Your task to perform on an android device: Go to Google Image 0: 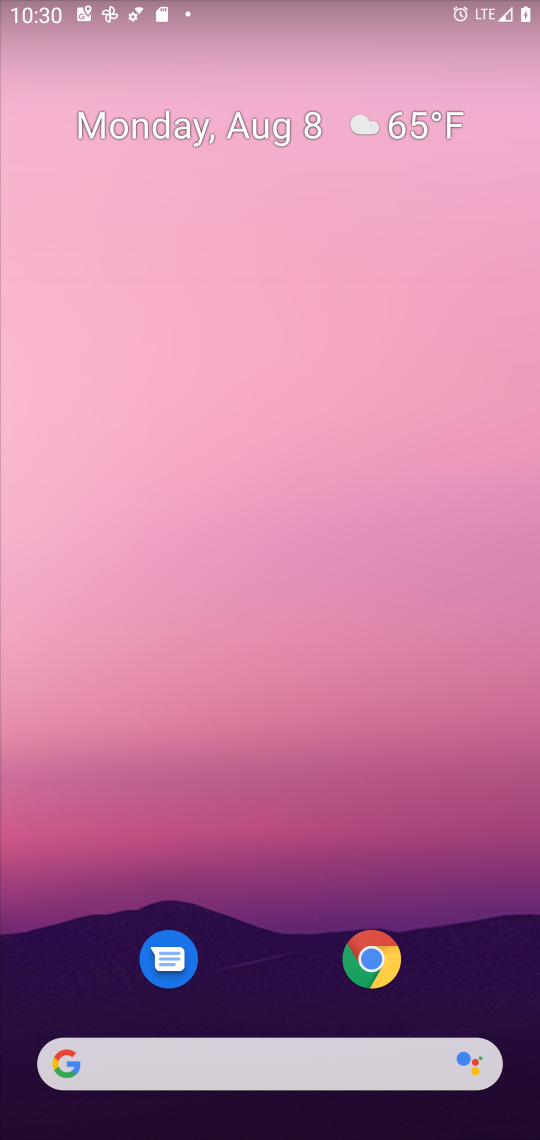
Step 0: drag from (488, 962) to (387, 43)
Your task to perform on an android device: Go to Google Image 1: 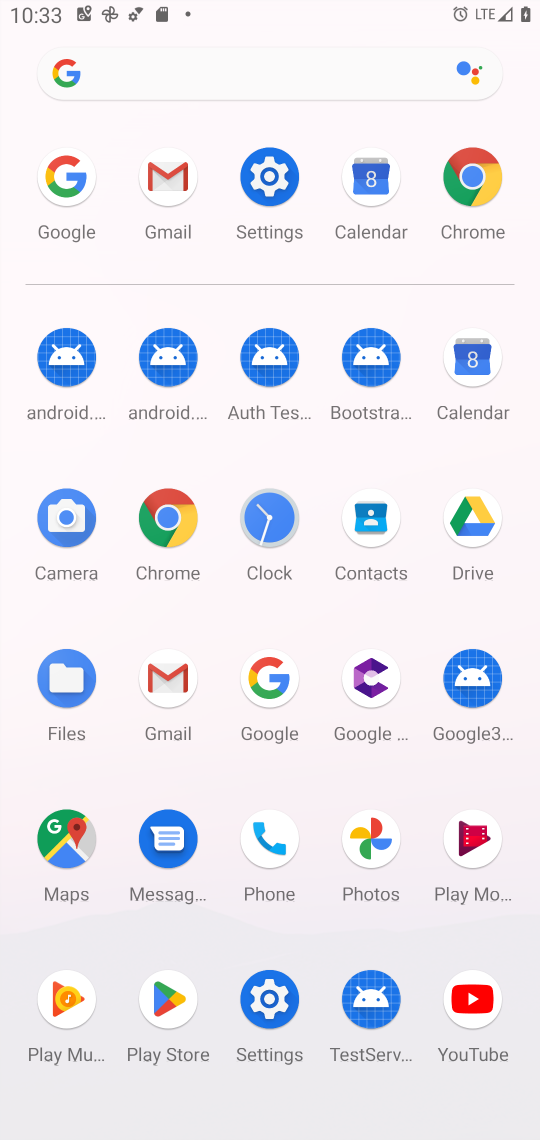
Step 1: click (262, 684)
Your task to perform on an android device: Go to Google Image 2: 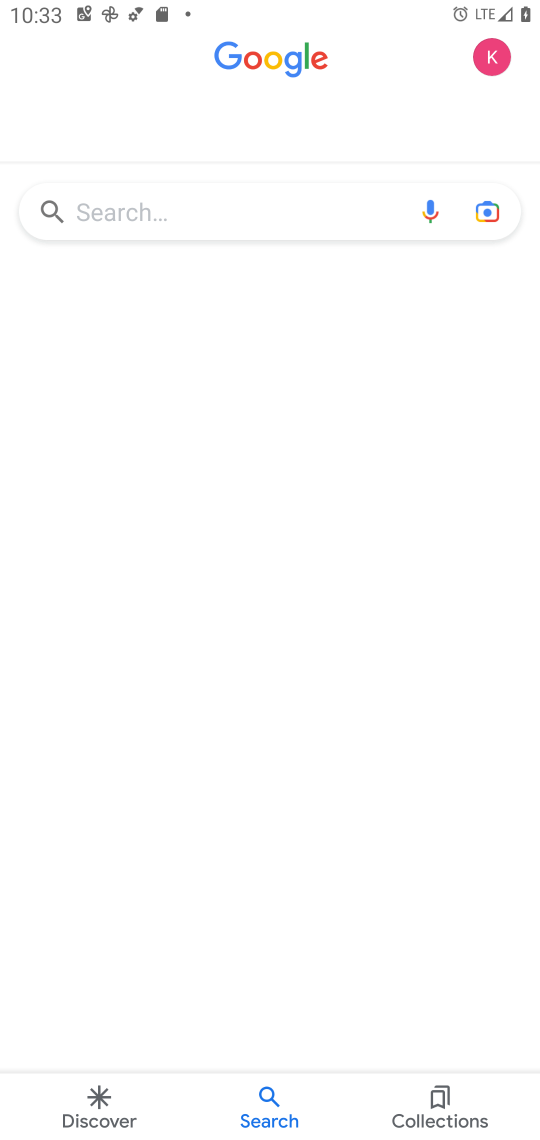
Step 2: task complete